Your task to perform on an android device: turn on bluetooth scan Image 0: 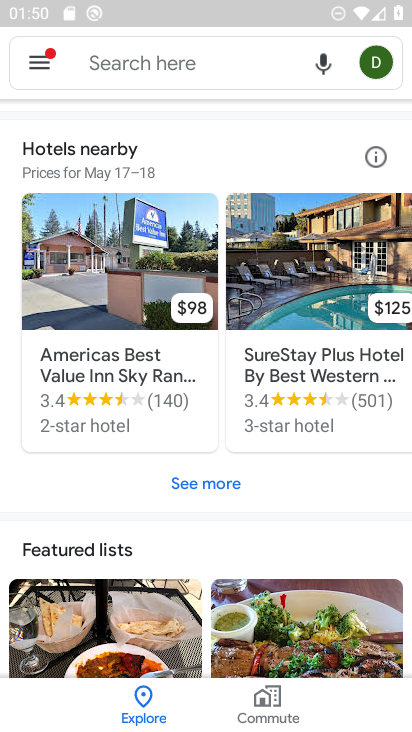
Step 0: press home button
Your task to perform on an android device: turn on bluetooth scan Image 1: 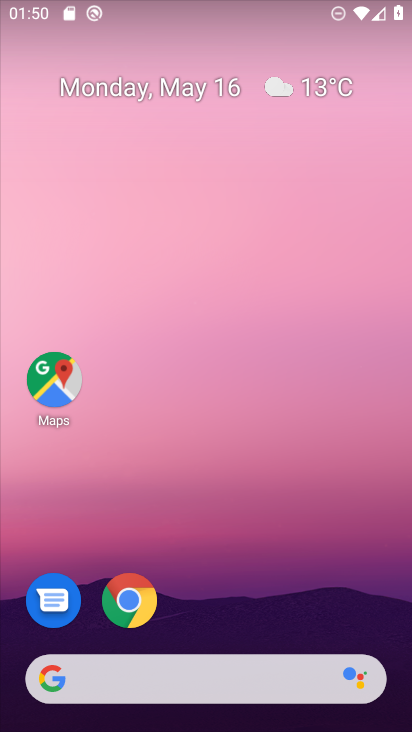
Step 1: drag from (200, 621) to (286, 36)
Your task to perform on an android device: turn on bluetooth scan Image 2: 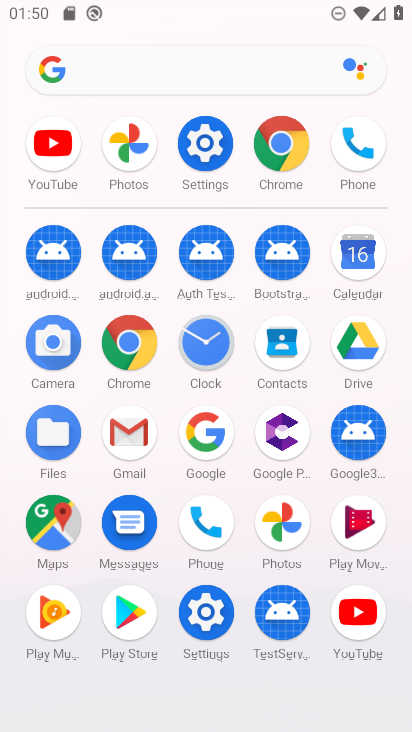
Step 2: click (202, 606)
Your task to perform on an android device: turn on bluetooth scan Image 3: 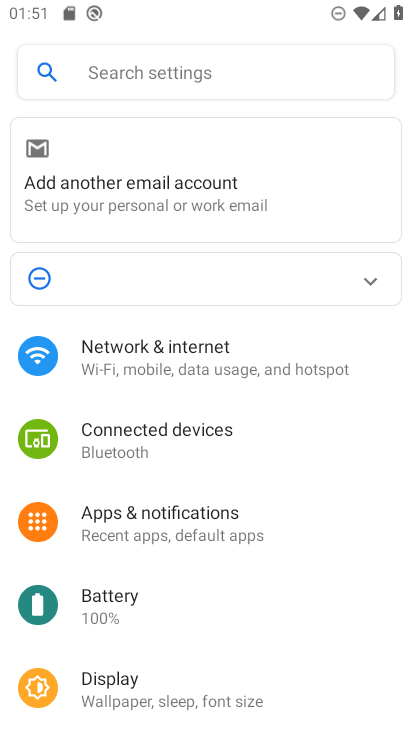
Step 3: drag from (217, 676) to (279, 106)
Your task to perform on an android device: turn on bluetooth scan Image 4: 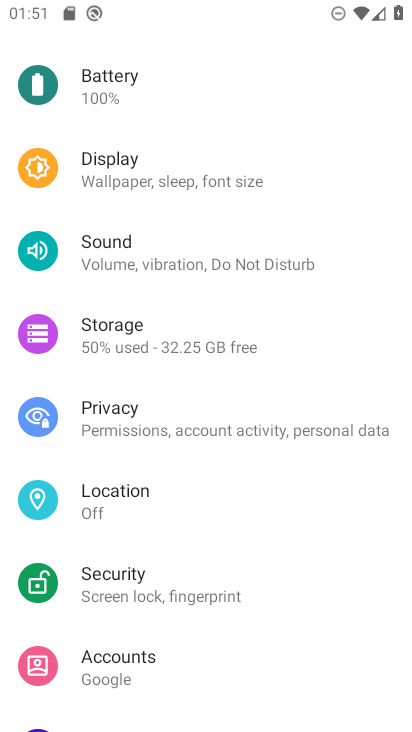
Step 4: click (160, 498)
Your task to perform on an android device: turn on bluetooth scan Image 5: 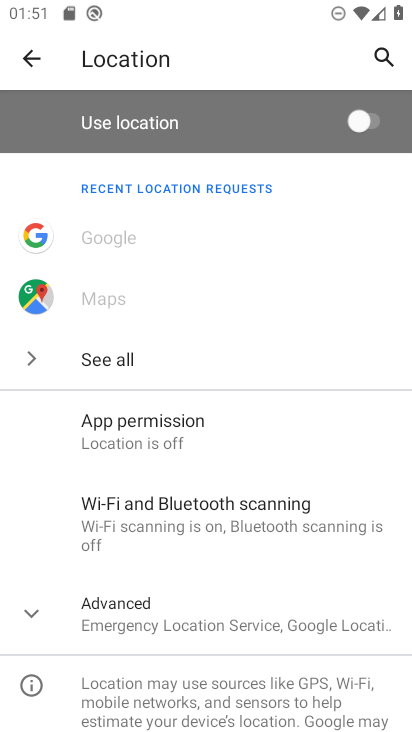
Step 5: click (33, 604)
Your task to perform on an android device: turn on bluetooth scan Image 6: 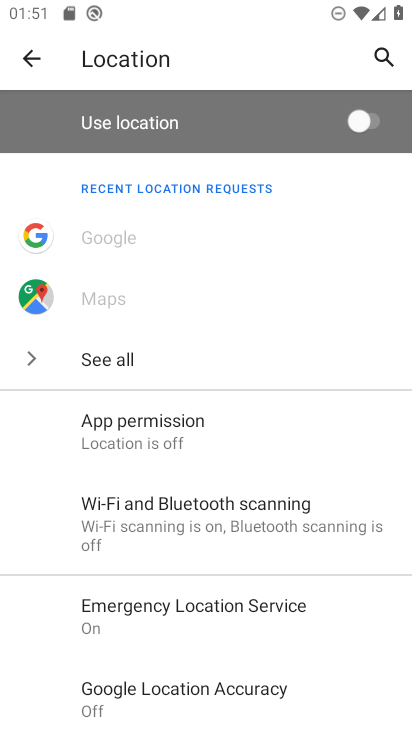
Step 6: drag from (183, 648) to (220, 501)
Your task to perform on an android device: turn on bluetooth scan Image 7: 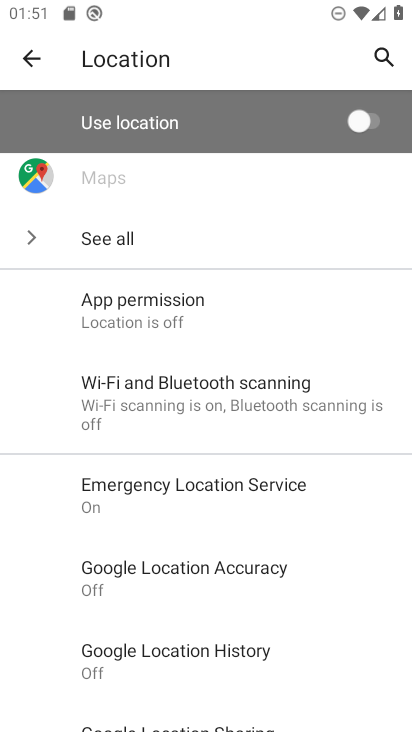
Step 7: click (165, 401)
Your task to perform on an android device: turn on bluetooth scan Image 8: 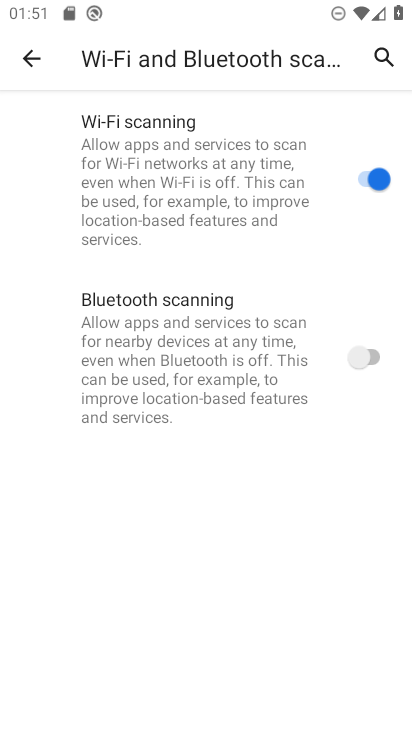
Step 8: click (368, 352)
Your task to perform on an android device: turn on bluetooth scan Image 9: 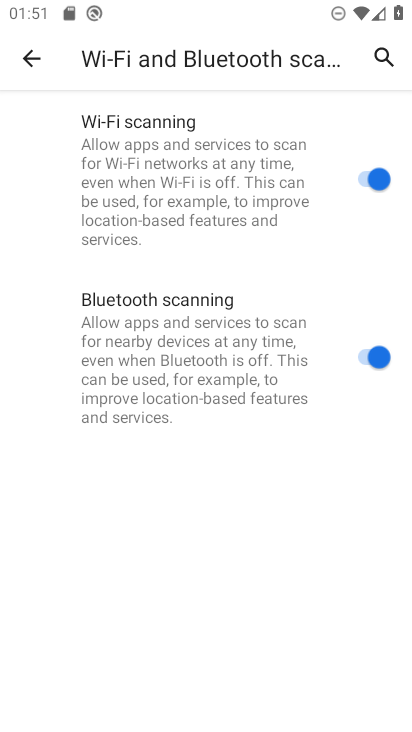
Step 9: task complete